Your task to perform on an android device: Check the weather Image 0: 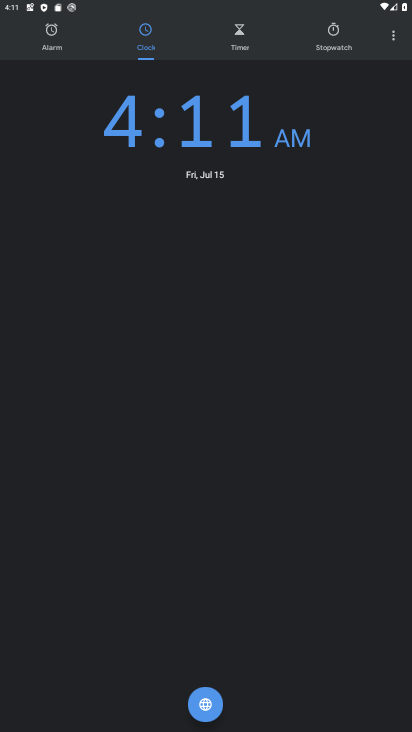
Step 0: press home button
Your task to perform on an android device: Check the weather Image 1: 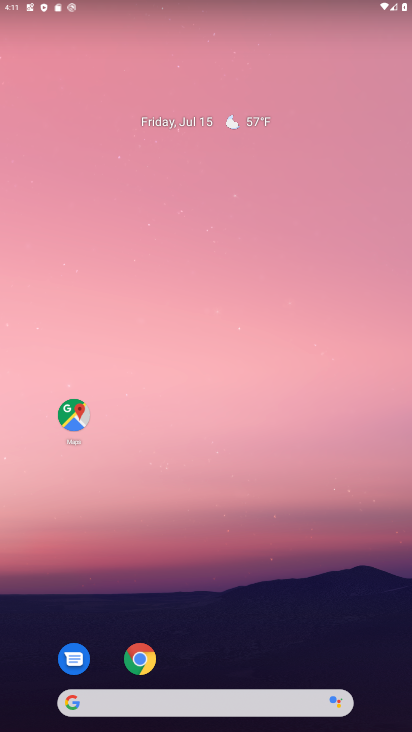
Step 1: click (144, 655)
Your task to perform on an android device: Check the weather Image 2: 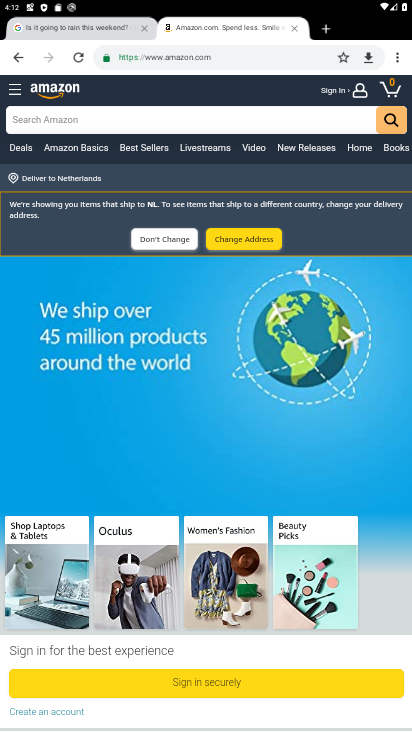
Step 2: click (160, 60)
Your task to perform on an android device: Check the weather Image 3: 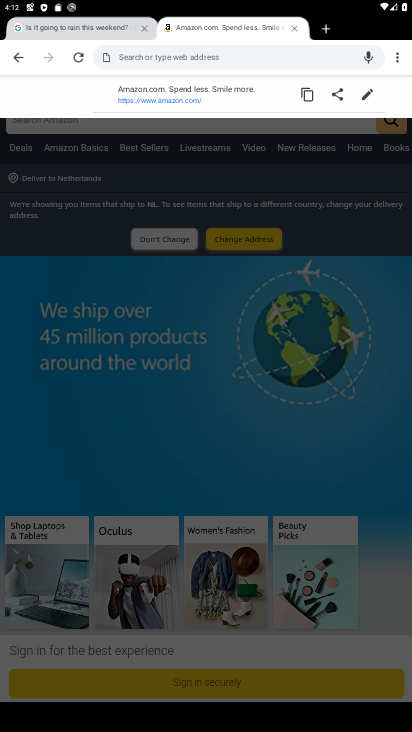
Step 3: type "Check the weather"
Your task to perform on an android device: Check the weather Image 4: 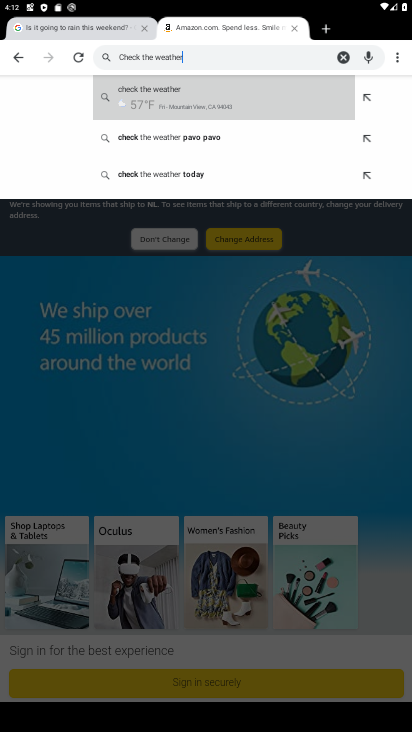
Step 4: click (216, 100)
Your task to perform on an android device: Check the weather Image 5: 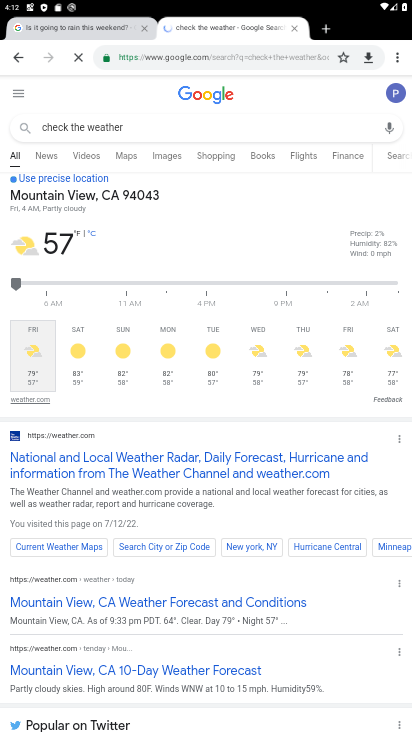
Step 5: task complete